Your task to perform on an android device: turn off translation in the chrome app Image 0: 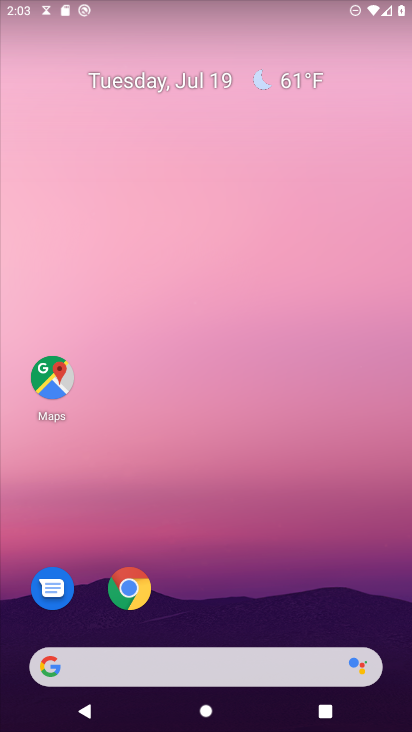
Step 0: drag from (267, 655) to (327, 183)
Your task to perform on an android device: turn off translation in the chrome app Image 1: 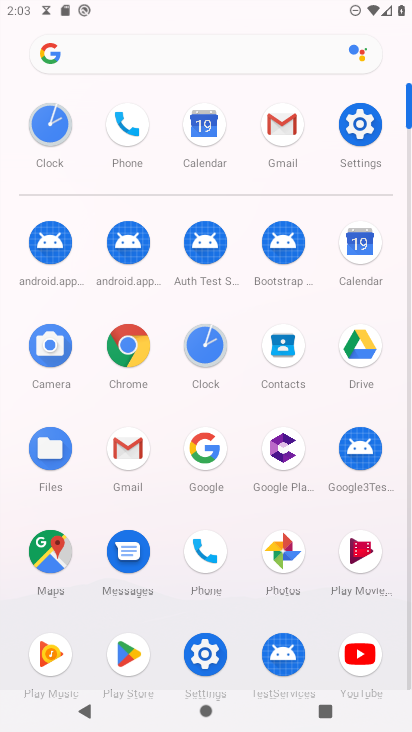
Step 1: click (147, 360)
Your task to perform on an android device: turn off translation in the chrome app Image 2: 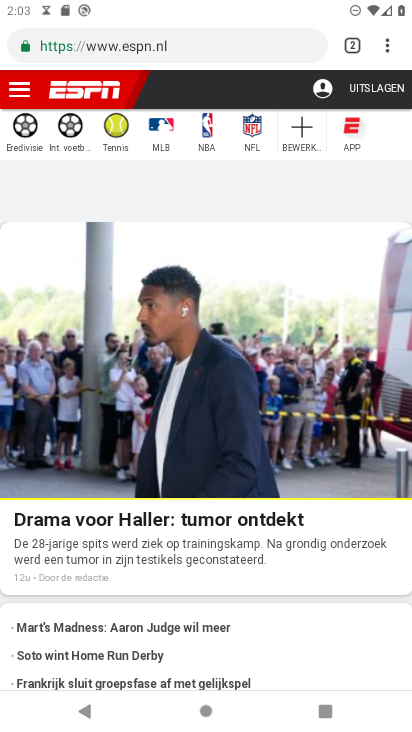
Step 2: click (385, 46)
Your task to perform on an android device: turn off translation in the chrome app Image 3: 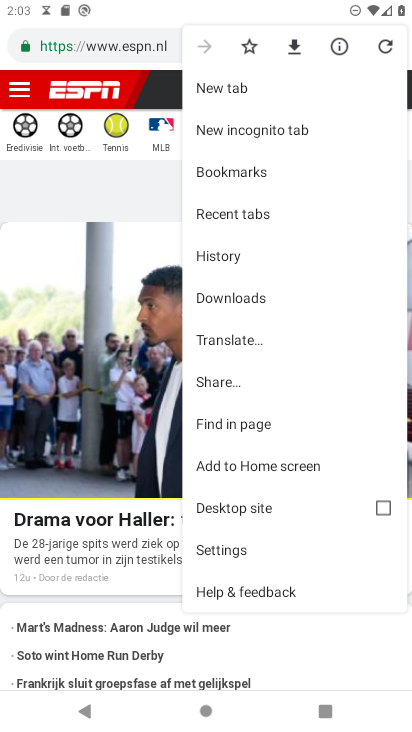
Step 3: click (251, 554)
Your task to perform on an android device: turn off translation in the chrome app Image 4: 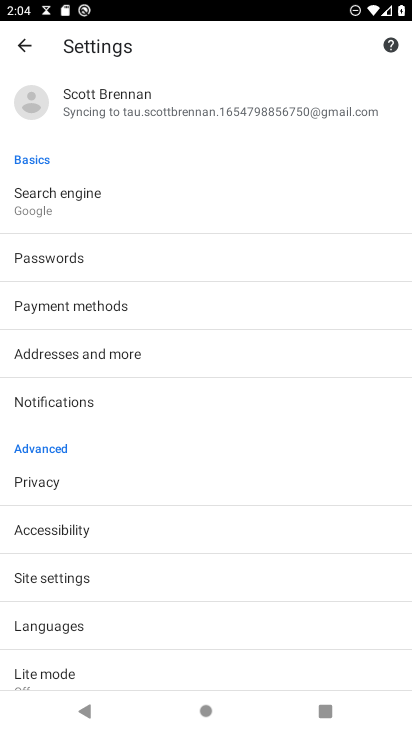
Step 4: click (112, 622)
Your task to perform on an android device: turn off translation in the chrome app Image 5: 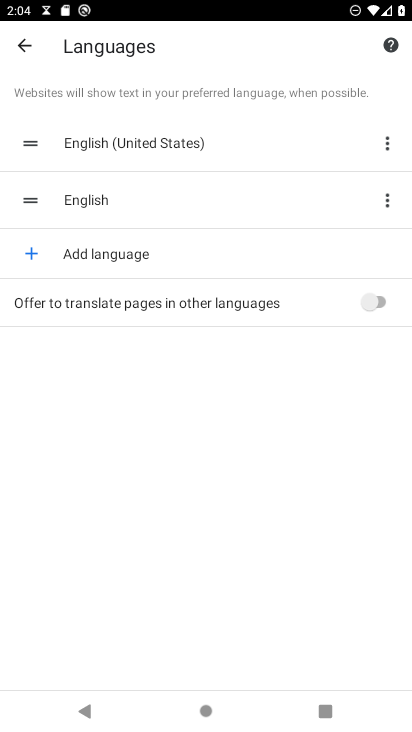
Step 5: click (370, 301)
Your task to perform on an android device: turn off translation in the chrome app Image 6: 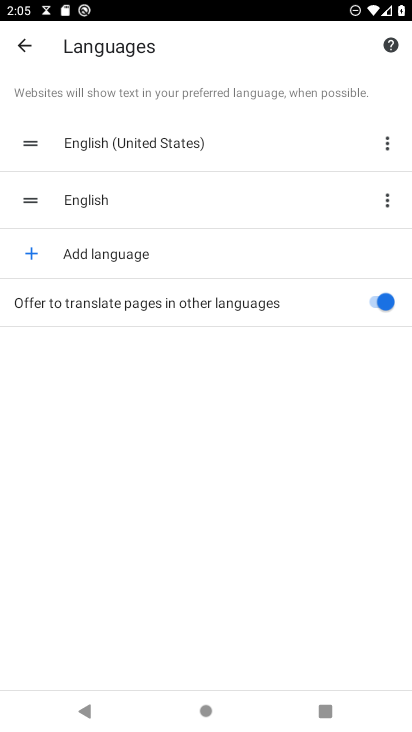
Step 6: click (375, 300)
Your task to perform on an android device: turn off translation in the chrome app Image 7: 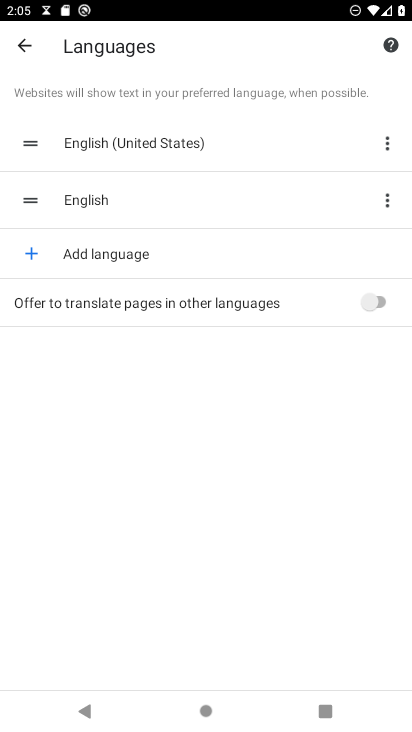
Step 7: task complete